Your task to perform on an android device: make emails show in primary in the gmail app Image 0: 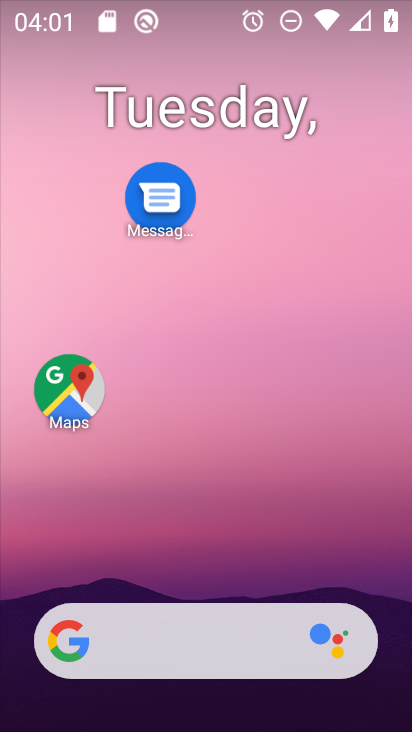
Step 0: drag from (237, 537) to (252, 164)
Your task to perform on an android device: make emails show in primary in the gmail app Image 1: 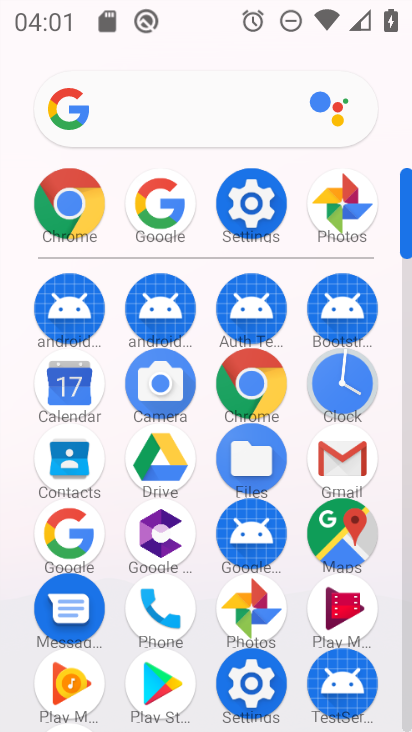
Step 1: click (345, 470)
Your task to perform on an android device: make emails show in primary in the gmail app Image 2: 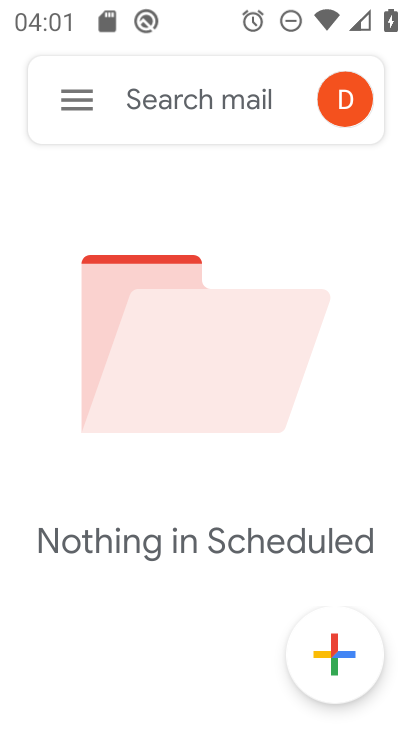
Step 2: click (74, 94)
Your task to perform on an android device: make emails show in primary in the gmail app Image 3: 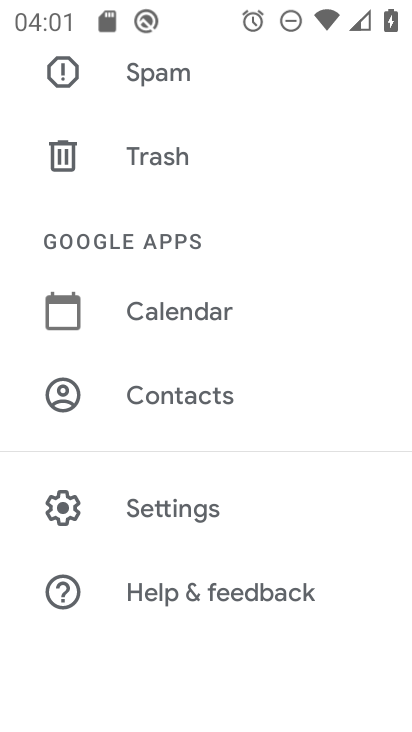
Step 3: click (167, 489)
Your task to perform on an android device: make emails show in primary in the gmail app Image 4: 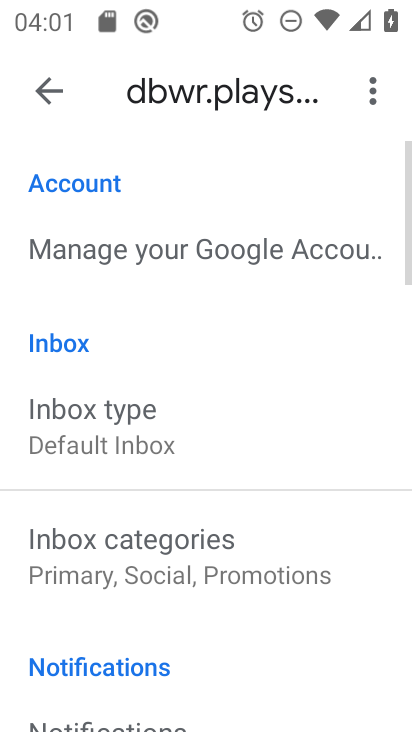
Step 4: drag from (203, 233) to (224, 511)
Your task to perform on an android device: make emails show in primary in the gmail app Image 5: 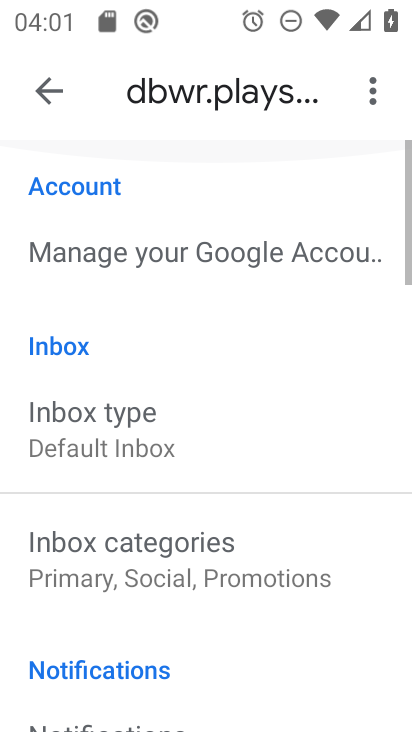
Step 5: drag from (224, 509) to (242, 260)
Your task to perform on an android device: make emails show in primary in the gmail app Image 6: 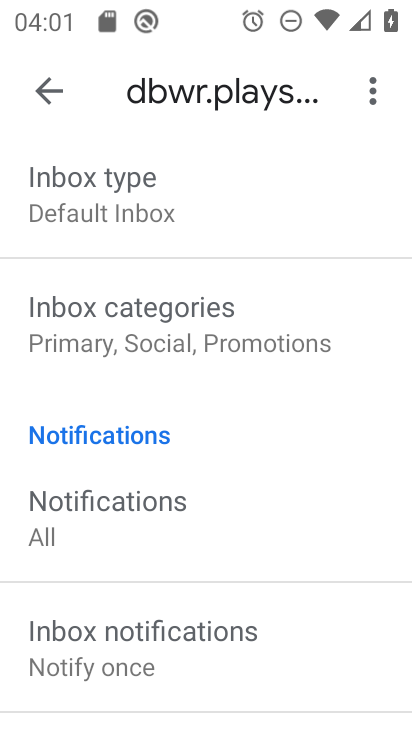
Step 6: drag from (215, 207) to (232, 427)
Your task to perform on an android device: make emails show in primary in the gmail app Image 7: 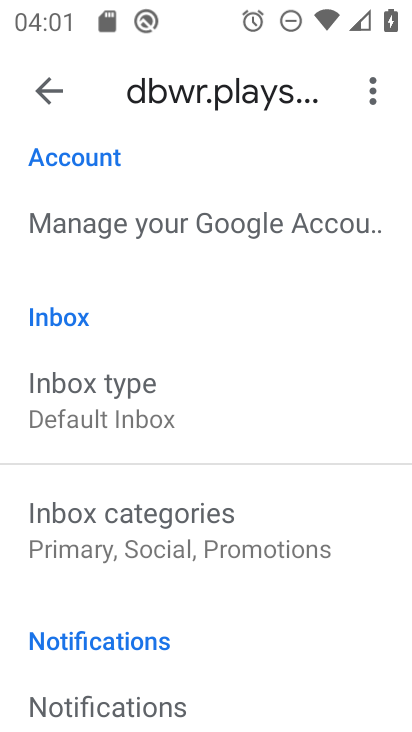
Step 7: click (194, 410)
Your task to perform on an android device: make emails show in primary in the gmail app Image 8: 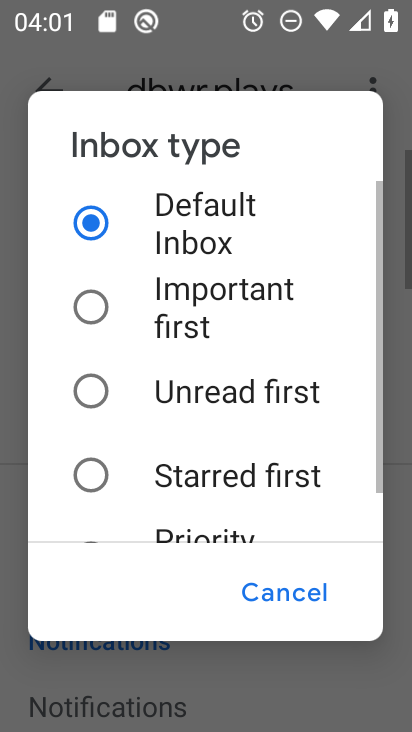
Step 8: drag from (196, 507) to (214, 345)
Your task to perform on an android device: make emails show in primary in the gmail app Image 9: 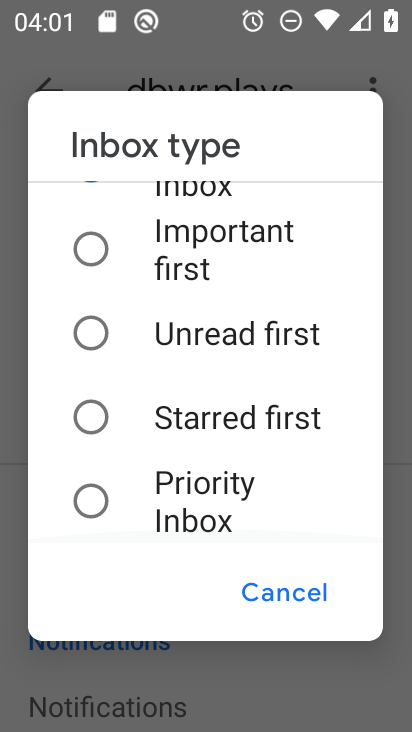
Step 9: click (180, 497)
Your task to perform on an android device: make emails show in primary in the gmail app Image 10: 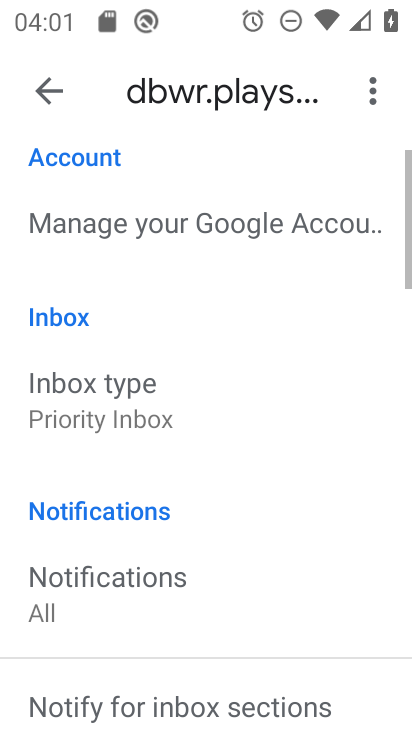
Step 10: task complete